Your task to perform on an android device: Is it going to rain tomorrow? Image 0: 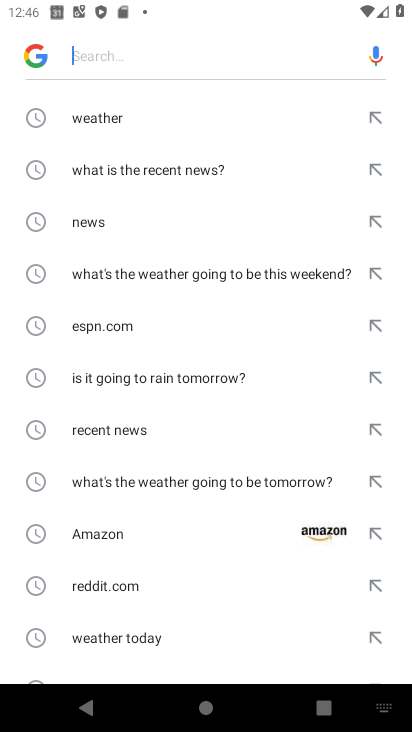
Step 0: type "is it going to rain tomorrow"
Your task to perform on an android device: Is it going to rain tomorrow? Image 1: 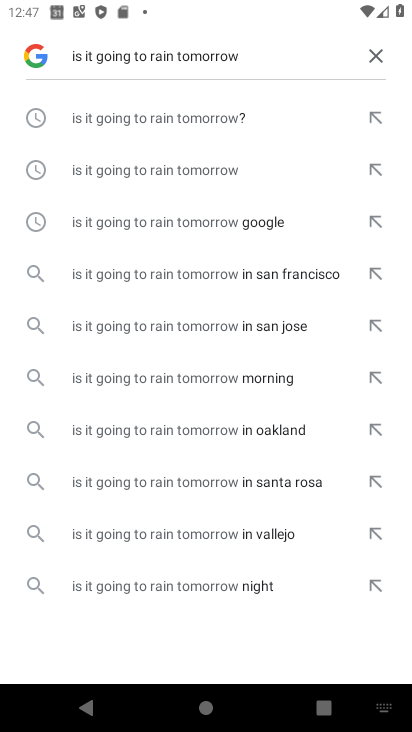
Step 1: click (138, 119)
Your task to perform on an android device: Is it going to rain tomorrow? Image 2: 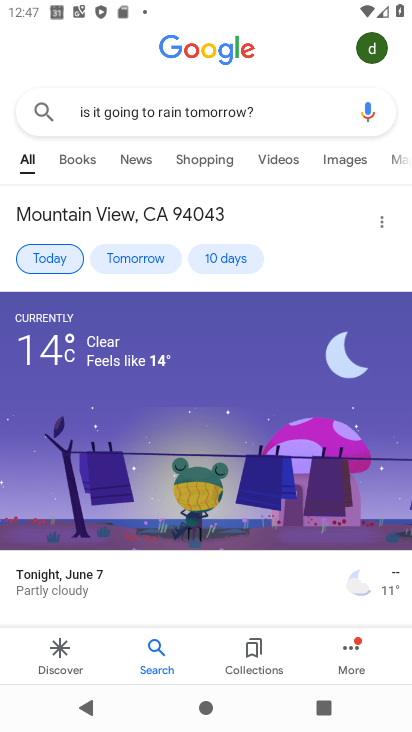
Step 2: click (148, 257)
Your task to perform on an android device: Is it going to rain tomorrow? Image 3: 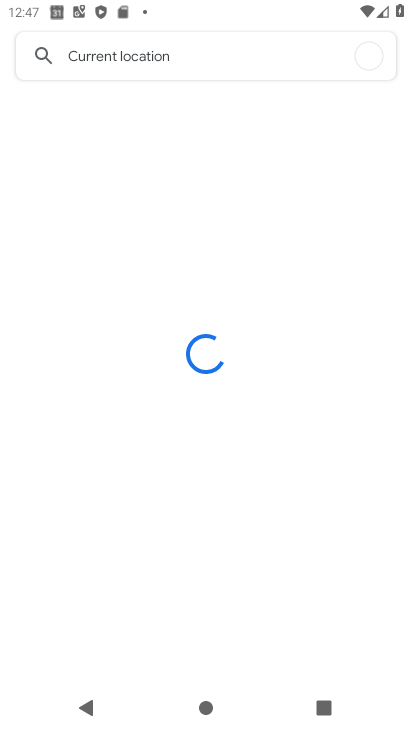
Step 3: click (148, 263)
Your task to perform on an android device: Is it going to rain tomorrow? Image 4: 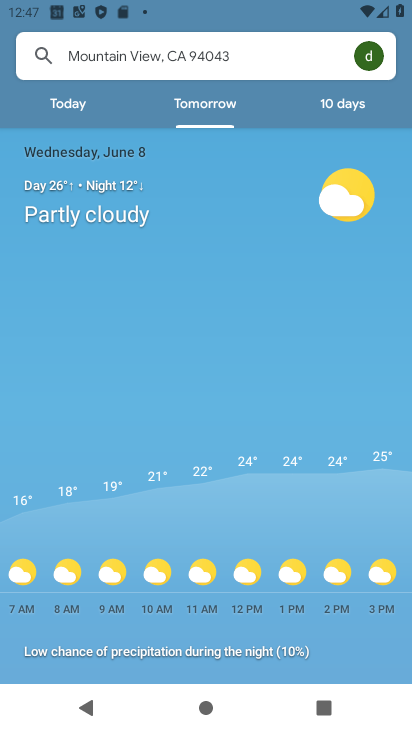
Step 4: task complete